Your task to perform on an android device: change keyboard looks Image 0: 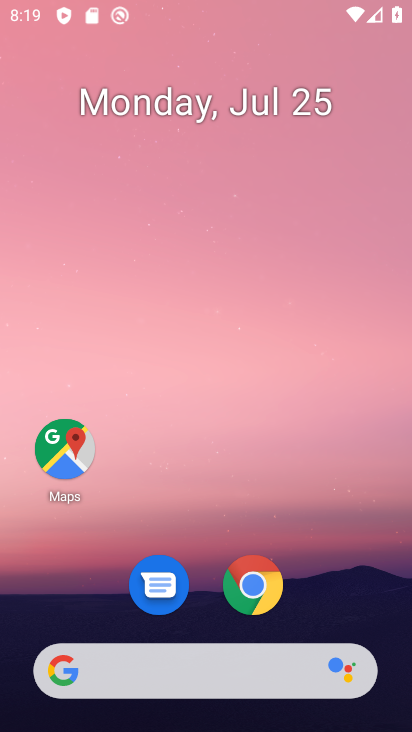
Step 0: press home button
Your task to perform on an android device: change keyboard looks Image 1: 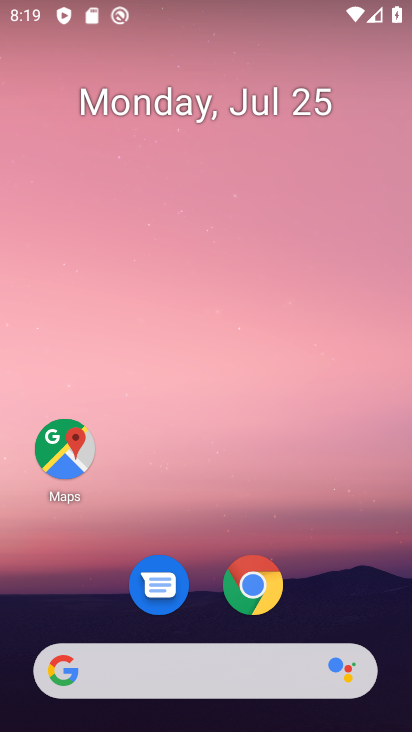
Step 1: drag from (171, 675) to (310, 99)
Your task to perform on an android device: change keyboard looks Image 2: 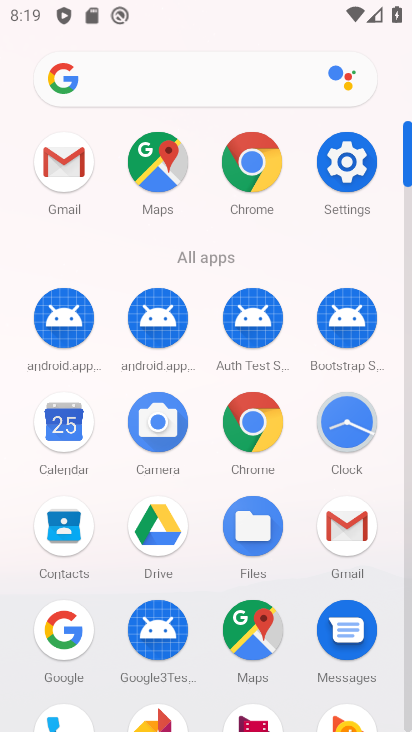
Step 2: click (350, 173)
Your task to perform on an android device: change keyboard looks Image 3: 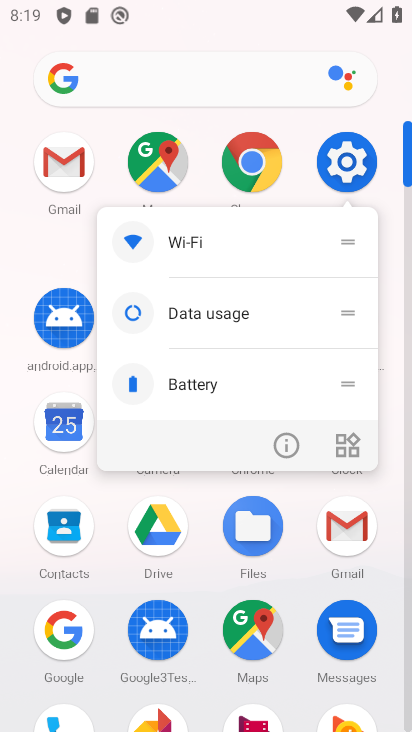
Step 3: click (338, 160)
Your task to perform on an android device: change keyboard looks Image 4: 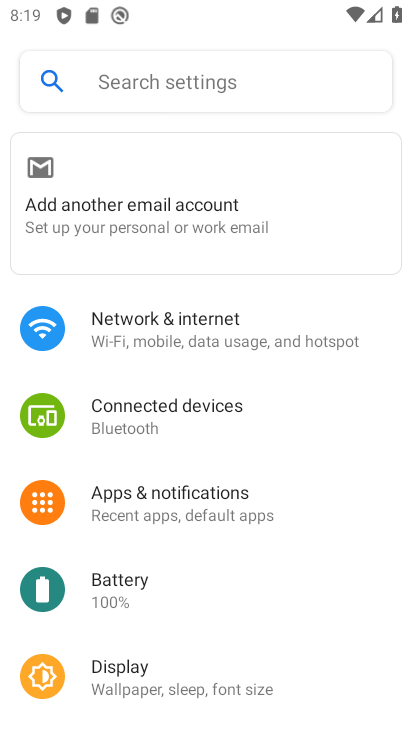
Step 4: drag from (306, 681) to (369, 126)
Your task to perform on an android device: change keyboard looks Image 5: 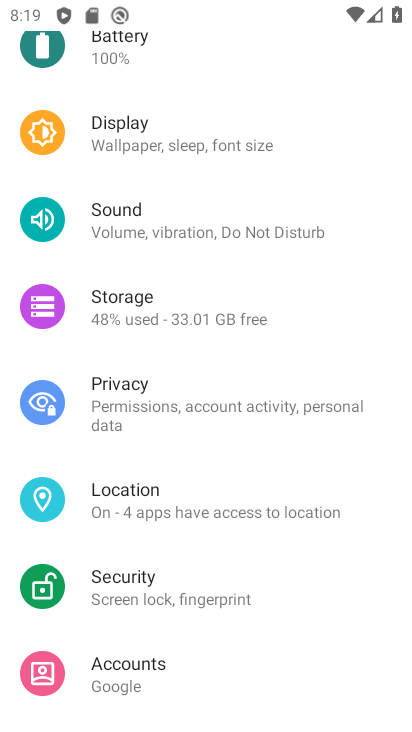
Step 5: drag from (297, 654) to (335, 105)
Your task to perform on an android device: change keyboard looks Image 6: 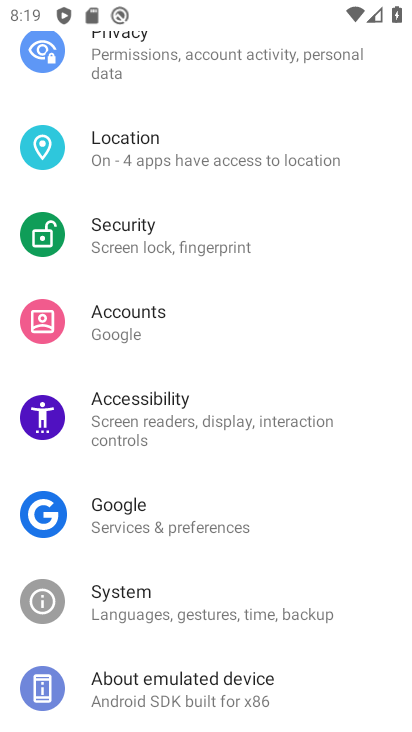
Step 6: click (132, 605)
Your task to perform on an android device: change keyboard looks Image 7: 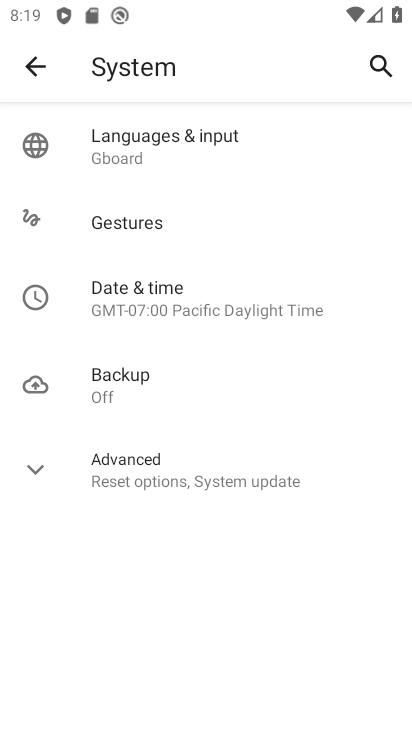
Step 7: click (146, 155)
Your task to perform on an android device: change keyboard looks Image 8: 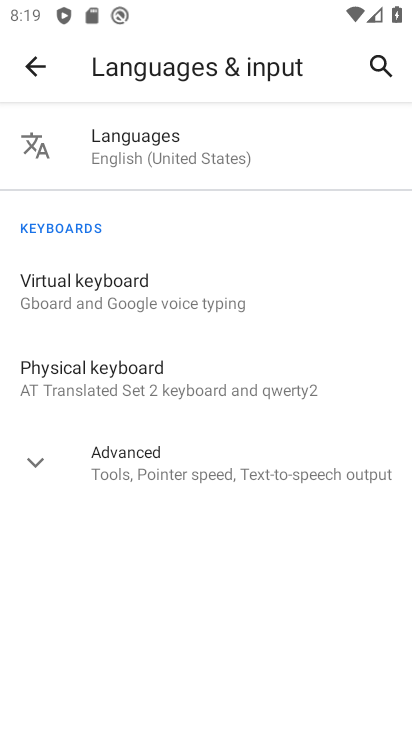
Step 8: click (118, 289)
Your task to perform on an android device: change keyboard looks Image 9: 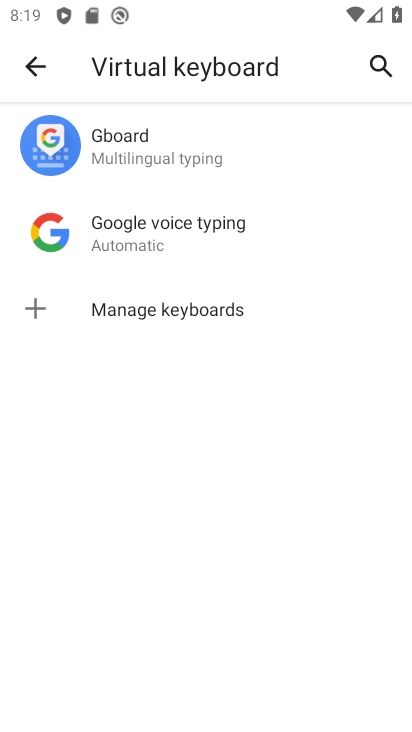
Step 9: click (123, 147)
Your task to perform on an android device: change keyboard looks Image 10: 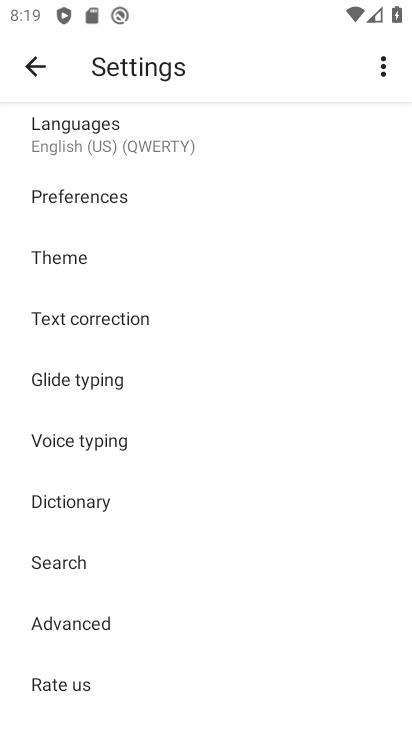
Step 10: click (75, 253)
Your task to perform on an android device: change keyboard looks Image 11: 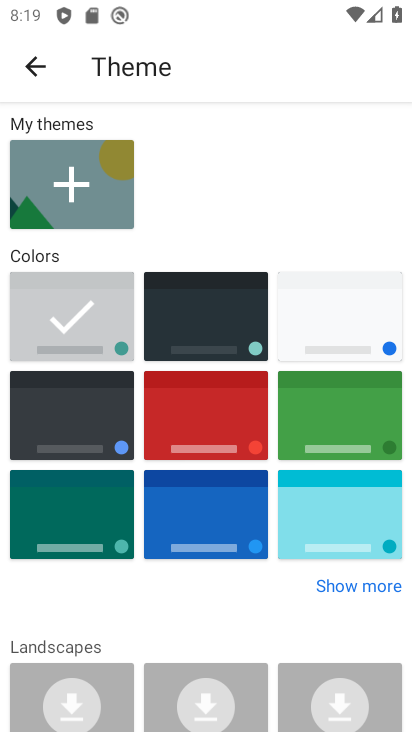
Step 11: click (227, 511)
Your task to perform on an android device: change keyboard looks Image 12: 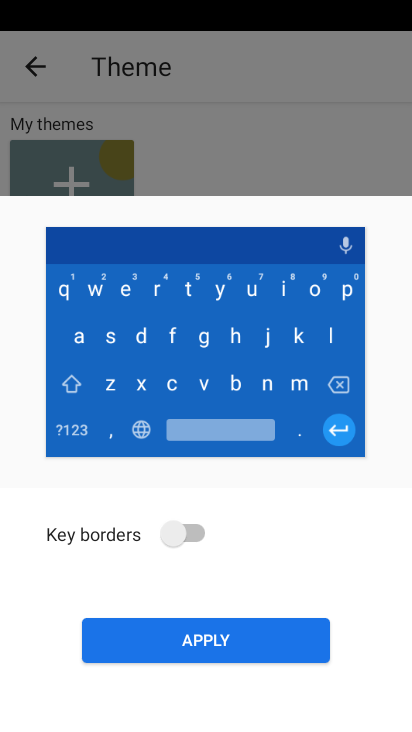
Step 12: click (230, 641)
Your task to perform on an android device: change keyboard looks Image 13: 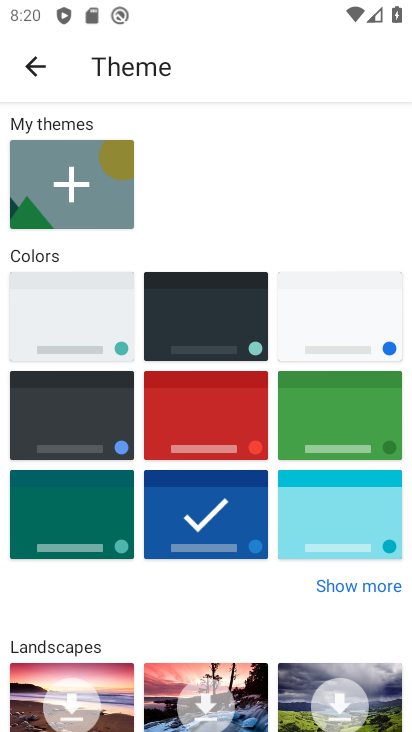
Step 13: task complete